Your task to perform on an android device: Open my contact list Image 0: 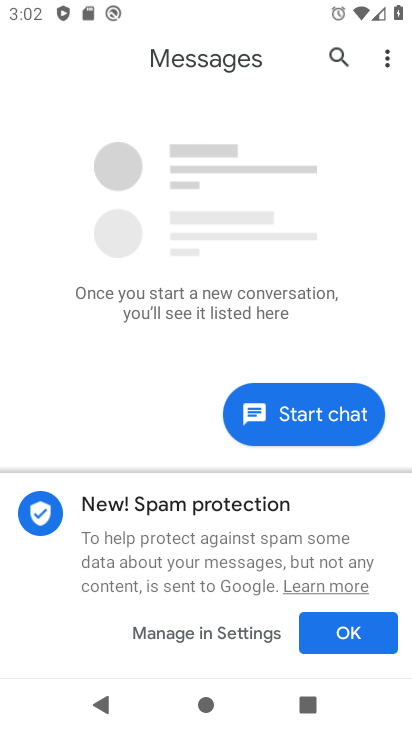
Step 0: press home button
Your task to perform on an android device: Open my contact list Image 1: 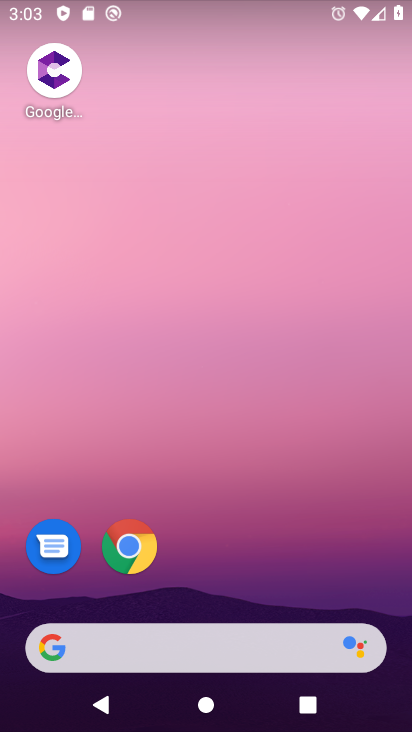
Step 1: drag from (251, 580) to (225, 94)
Your task to perform on an android device: Open my contact list Image 2: 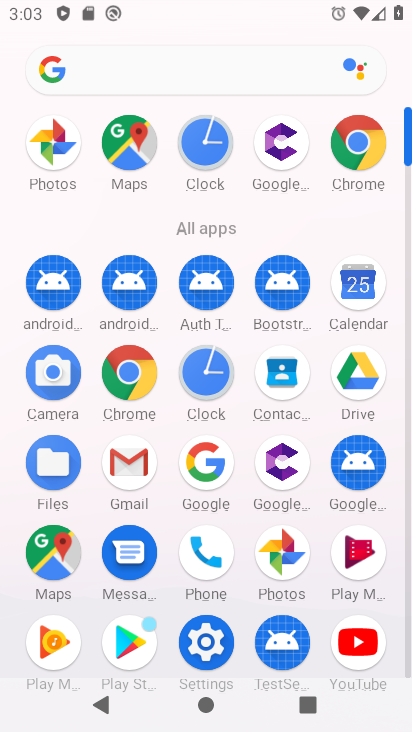
Step 2: click (290, 376)
Your task to perform on an android device: Open my contact list Image 3: 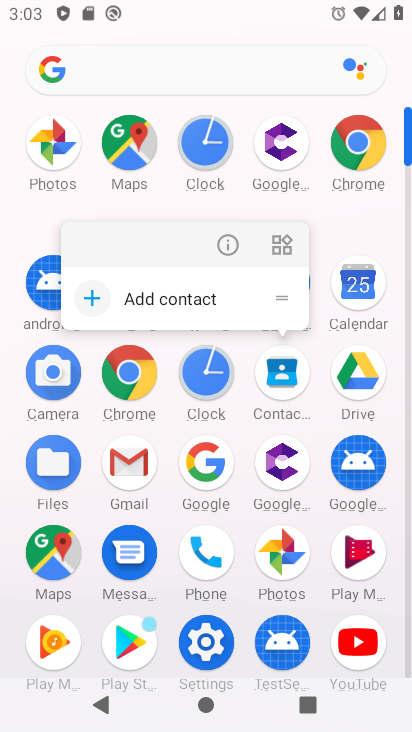
Step 3: click (290, 365)
Your task to perform on an android device: Open my contact list Image 4: 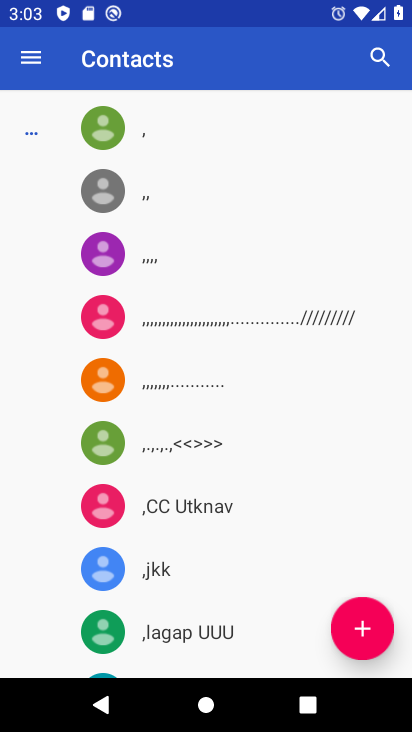
Step 4: task complete